Your task to perform on an android device: Show me the alarms in the clock app Image 0: 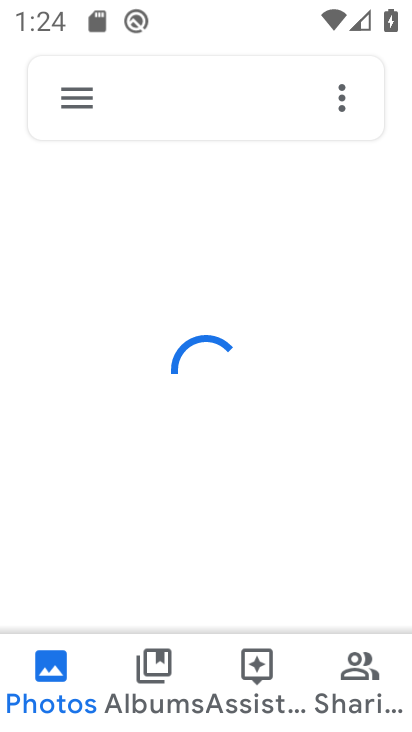
Step 0: press home button
Your task to perform on an android device: Show me the alarms in the clock app Image 1: 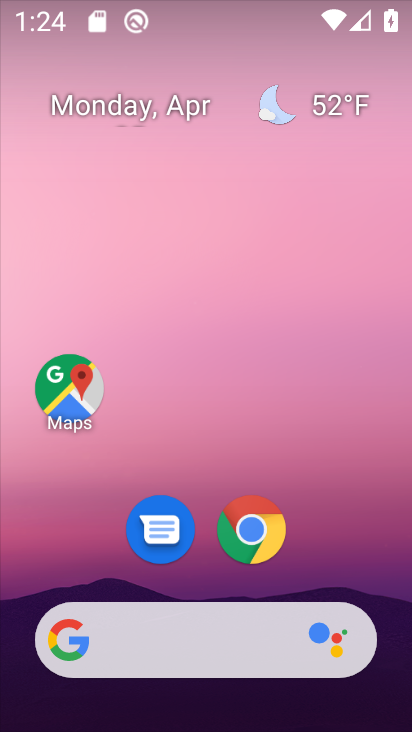
Step 1: drag from (368, 301) to (361, 251)
Your task to perform on an android device: Show me the alarms in the clock app Image 2: 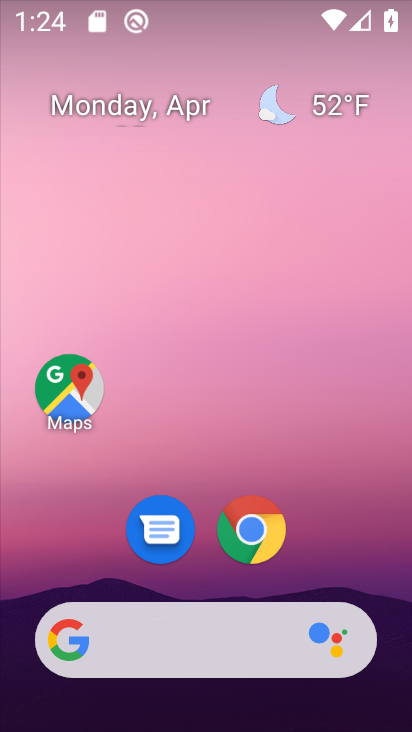
Step 2: drag from (352, 354) to (338, 208)
Your task to perform on an android device: Show me the alarms in the clock app Image 3: 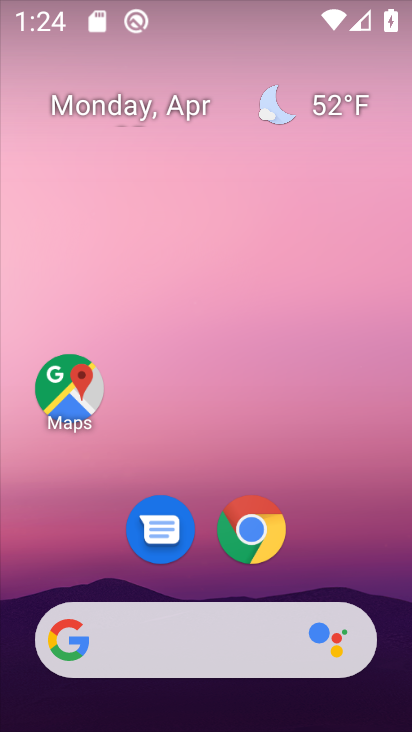
Step 3: drag from (394, 128) to (405, 287)
Your task to perform on an android device: Show me the alarms in the clock app Image 4: 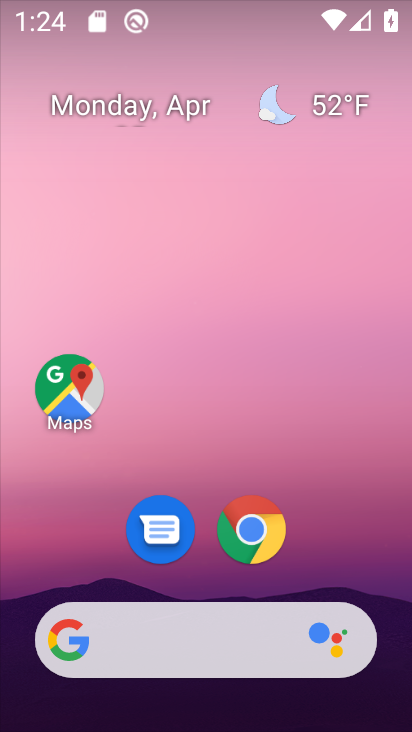
Step 4: drag from (383, 398) to (381, 140)
Your task to perform on an android device: Show me the alarms in the clock app Image 5: 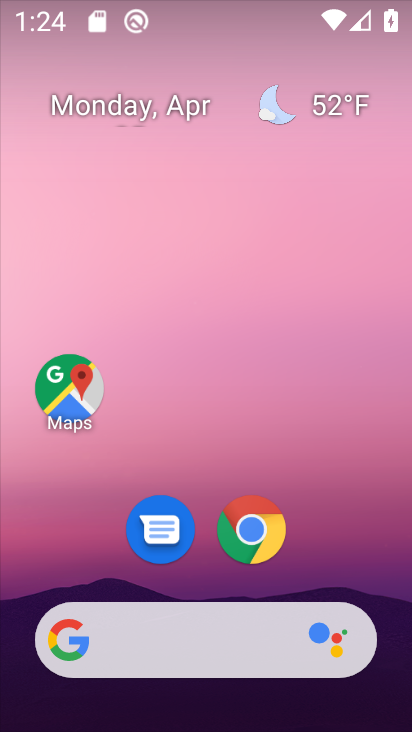
Step 5: drag from (394, 651) to (341, 97)
Your task to perform on an android device: Show me the alarms in the clock app Image 6: 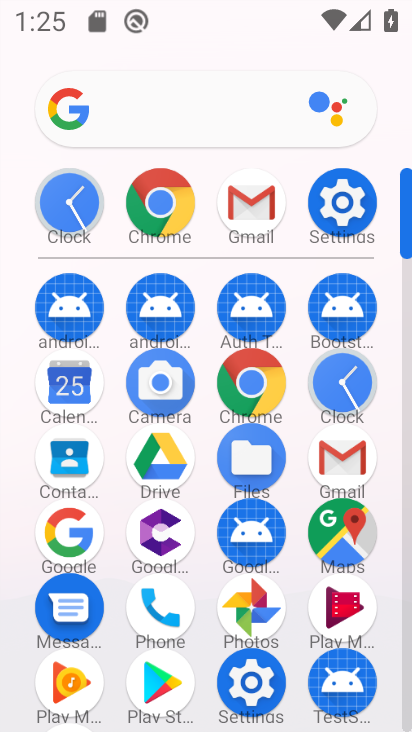
Step 6: click (346, 396)
Your task to perform on an android device: Show me the alarms in the clock app Image 7: 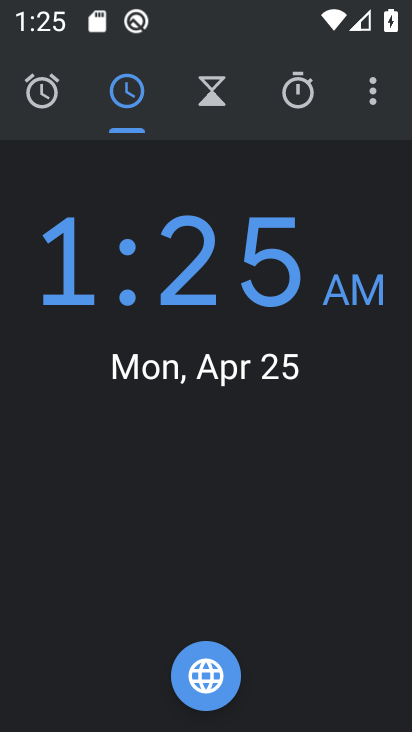
Step 7: click (44, 95)
Your task to perform on an android device: Show me the alarms in the clock app Image 8: 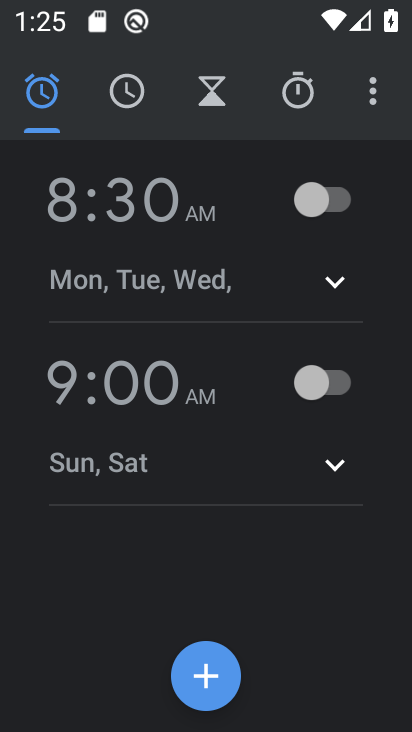
Step 8: click (333, 188)
Your task to perform on an android device: Show me the alarms in the clock app Image 9: 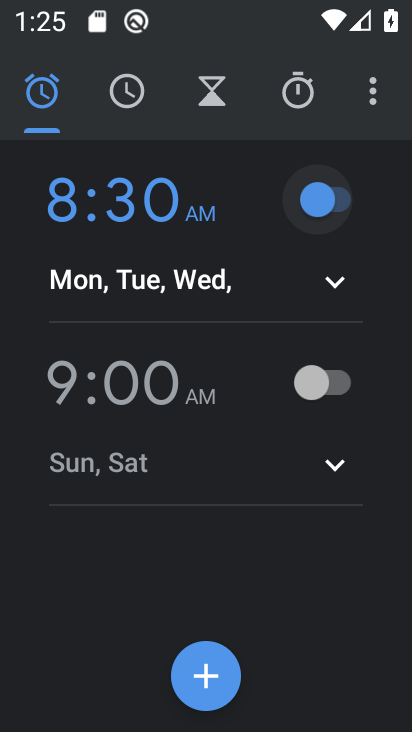
Step 9: click (320, 192)
Your task to perform on an android device: Show me the alarms in the clock app Image 10: 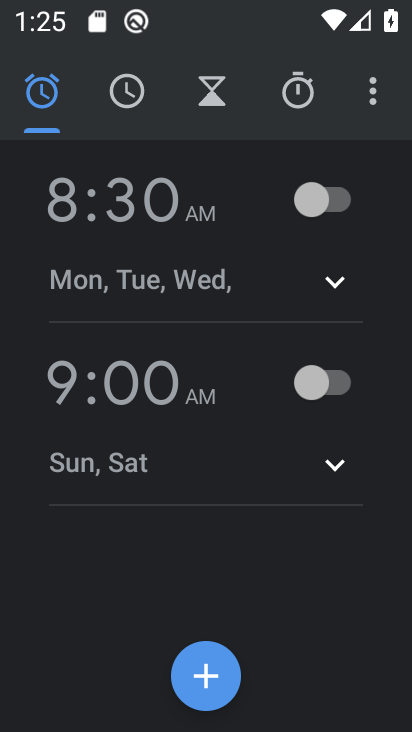
Step 10: task complete